Your task to perform on an android device: visit the assistant section in the google photos Image 0: 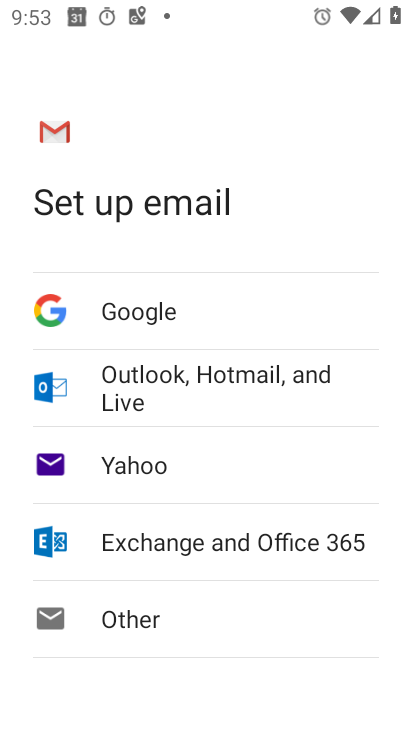
Step 0: press home button
Your task to perform on an android device: visit the assistant section in the google photos Image 1: 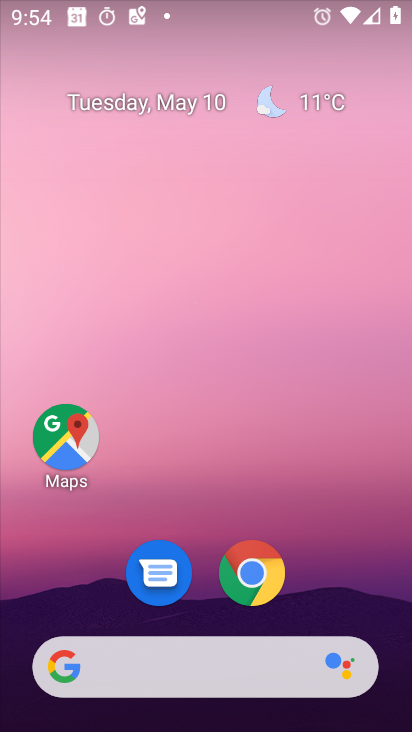
Step 1: drag from (361, 601) to (340, 24)
Your task to perform on an android device: visit the assistant section in the google photos Image 2: 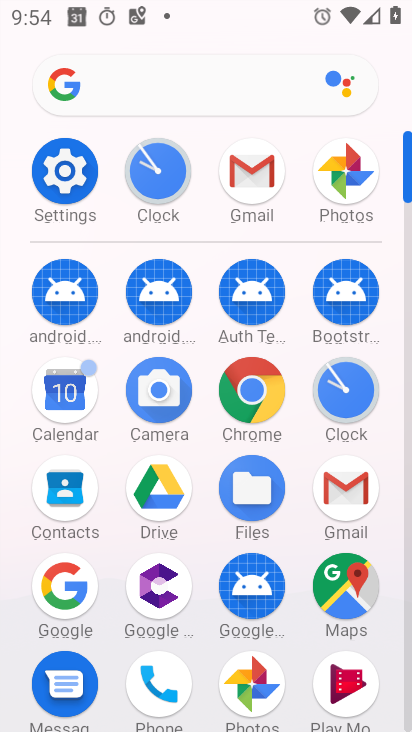
Step 2: click (341, 178)
Your task to perform on an android device: visit the assistant section in the google photos Image 3: 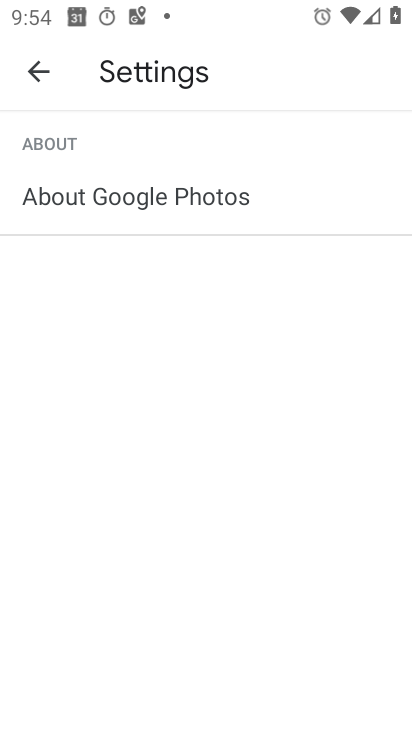
Step 3: click (35, 71)
Your task to perform on an android device: visit the assistant section in the google photos Image 4: 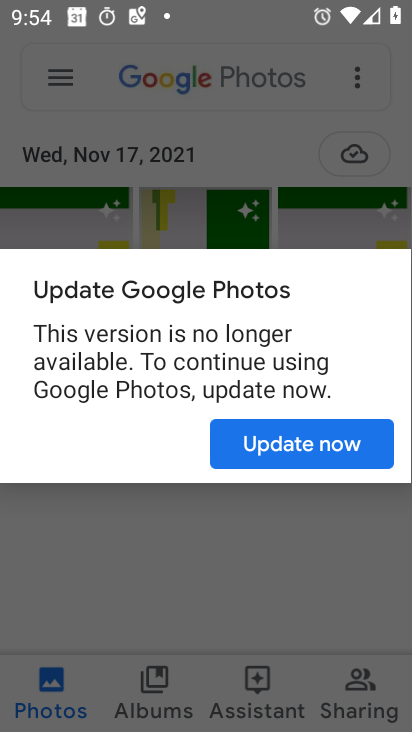
Step 4: click (282, 452)
Your task to perform on an android device: visit the assistant section in the google photos Image 5: 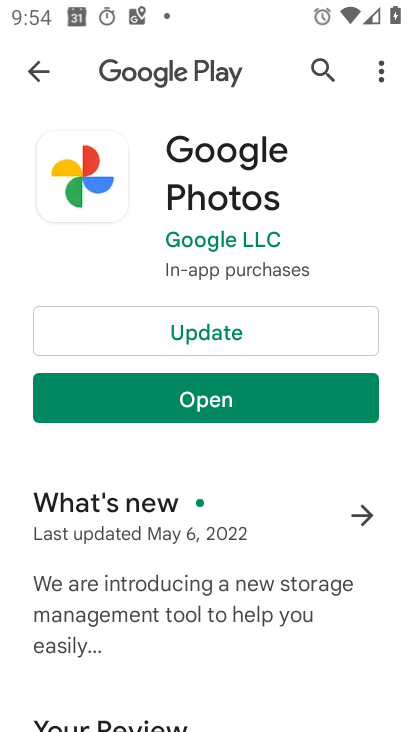
Step 5: click (34, 70)
Your task to perform on an android device: visit the assistant section in the google photos Image 6: 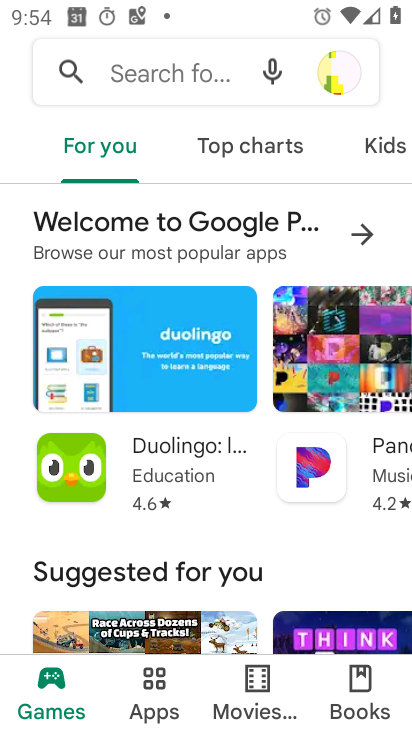
Step 6: press back button
Your task to perform on an android device: visit the assistant section in the google photos Image 7: 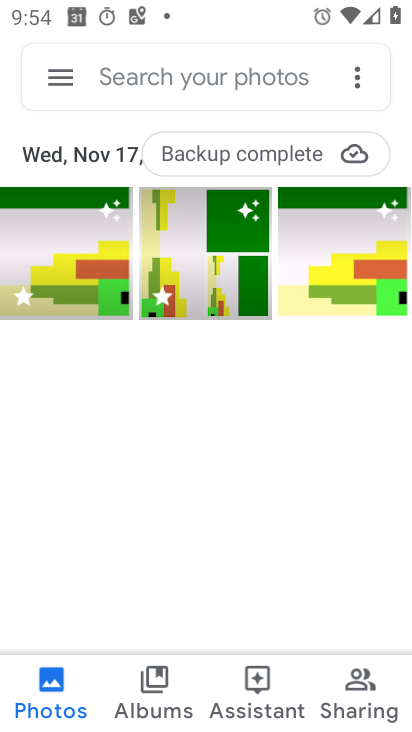
Step 7: click (245, 689)
Your task to perform on an android device: visit the assistant section in the google photos Image 8: 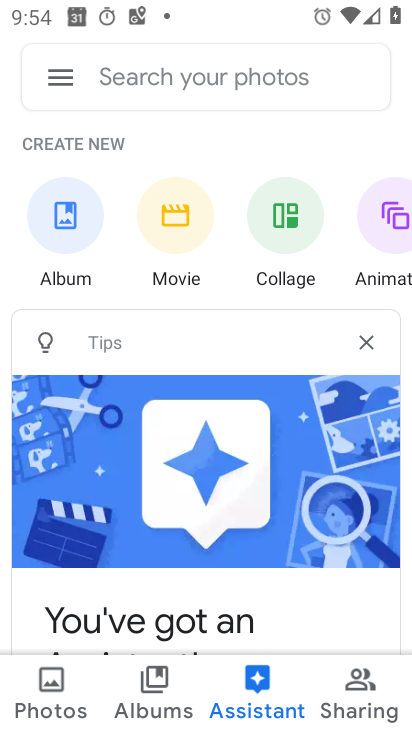
Step 8: task complete